Your task to perform on an android device: Open the Play Movies app and select the watchlist tab. Image 0: 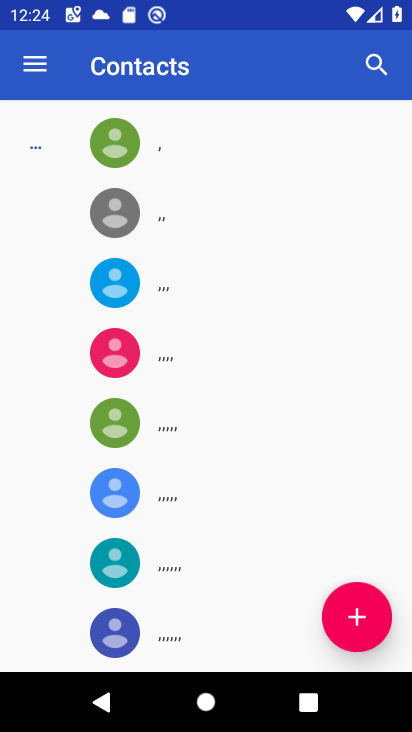
Step 0: press home button
Your task to perform on an android device: Open the Play Movies app and select the watchlist tab. Image 1: 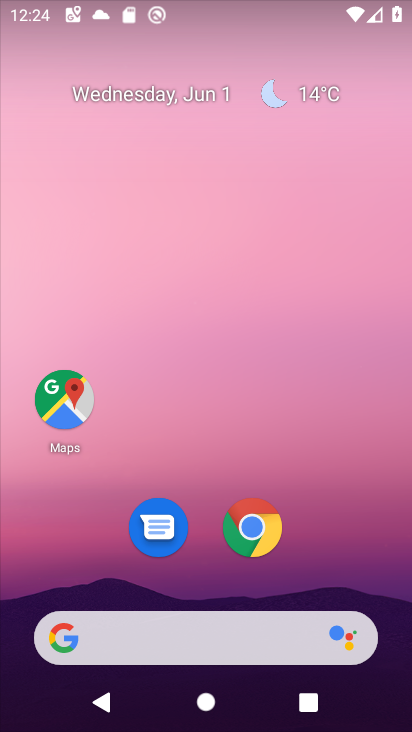
Step 1: drag from (376, 607) to (345, 0)
Your task to perform on an android device: Open the Play Movies app and select the watchlist tab. Image 2: 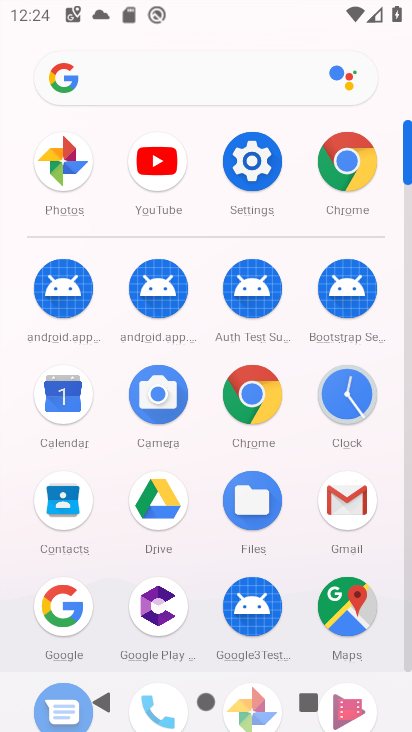
Step 2: click (408, 574)
Your task to perform on an android device: Open the Play Movies app and select the watchlist tab. Image 3: 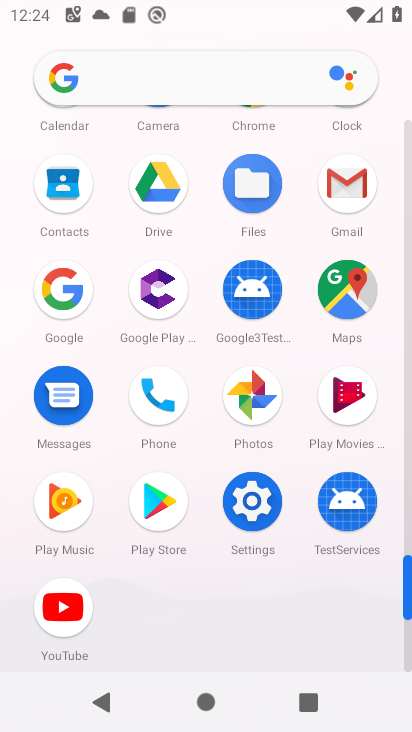
Step 3: click (343, 409)
Your task to perform on an android device: Open the Play Movies app and select the watchlist tab. Image 4: 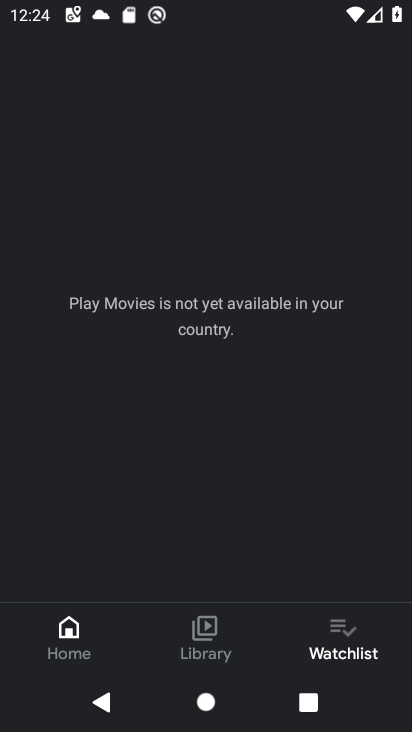
Step 4: click (327, 642)
Your task to perform on an android device: Open the Play Movies app and select the watchlist tab. Image 5: 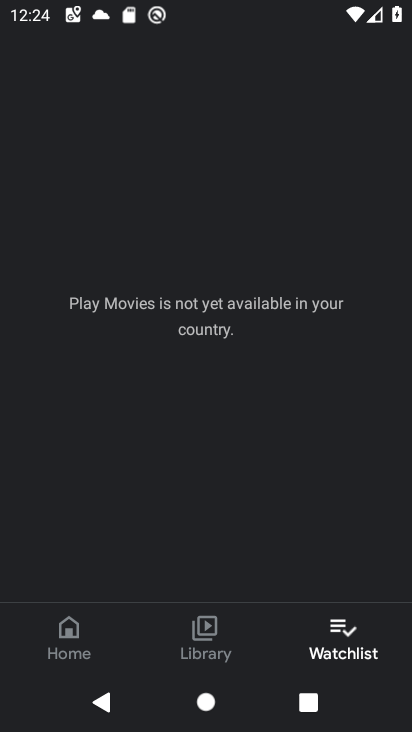
Step 5: task complete